Your task to perform on an android device: turn off airplane mode Image 0: 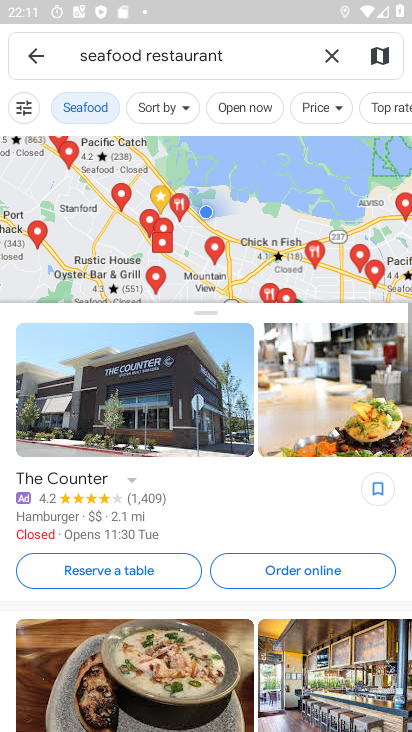
Step 0: press home button
Your task to perform on an android device: turn off airplane mode Image 1: 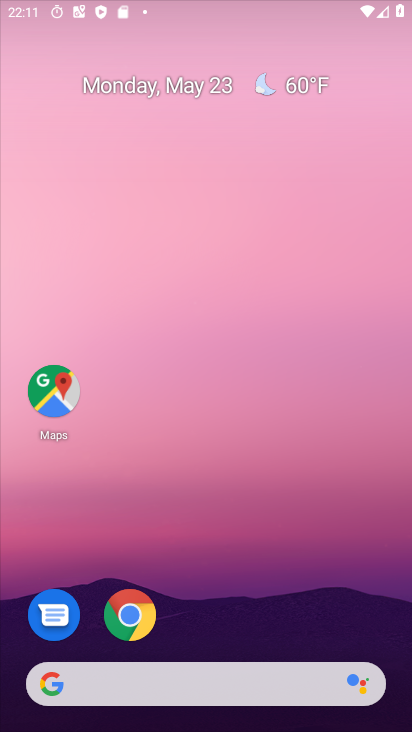
Step 1: drag from (219, 590) to (209, 97)
Your task to perform on an android device: turn off airplane mode Image 2: 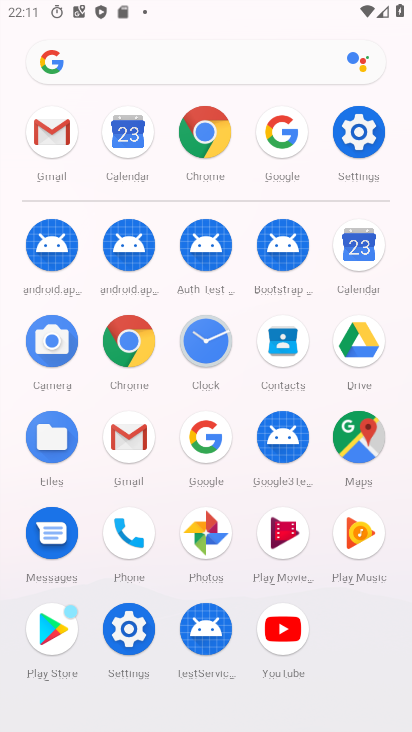
Step 2: click (362, 130)
Your task to perform on an android device: turn off airplane mode Image 3: 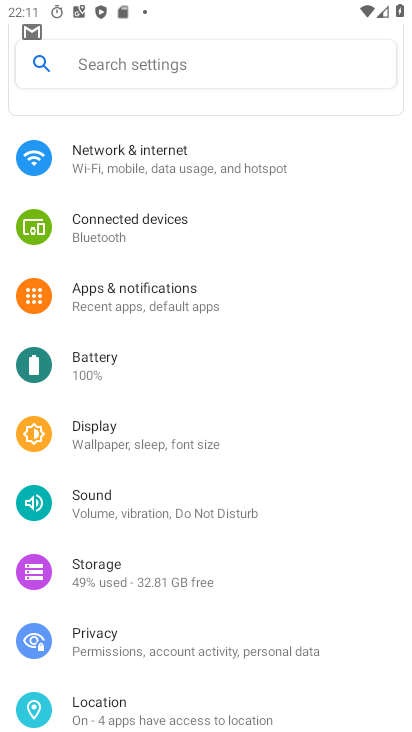
Step 3: click (162, 160)
Your task to perform on an android device: turn off airplane mode Image 4: 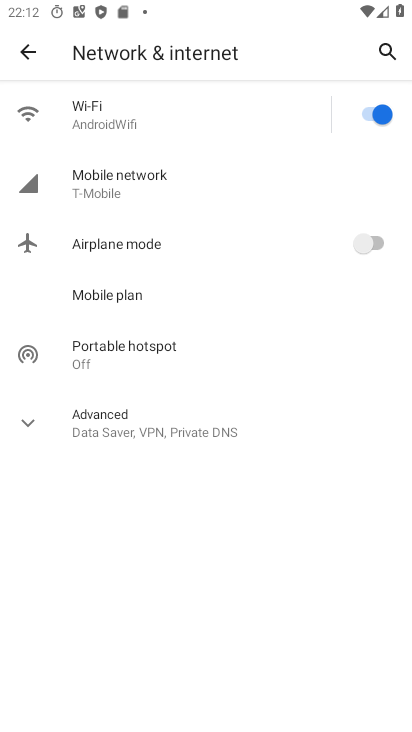
Step 4: task complete